Your task to perform on an android device: Go to Google maps Image 0: 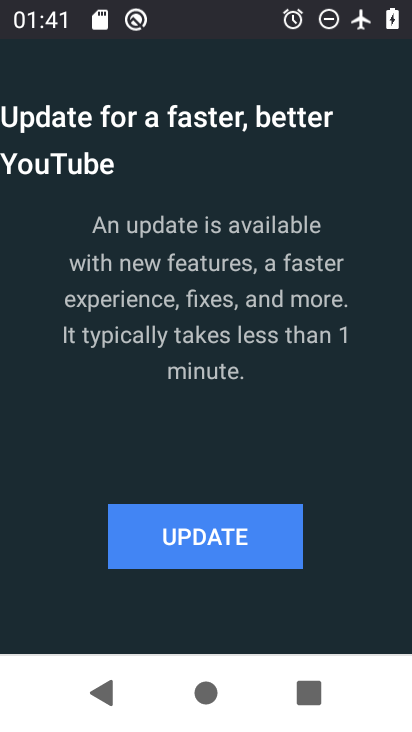
Step 0: press home button
Your task to perform on an android device: Go to Google maps Image 1: 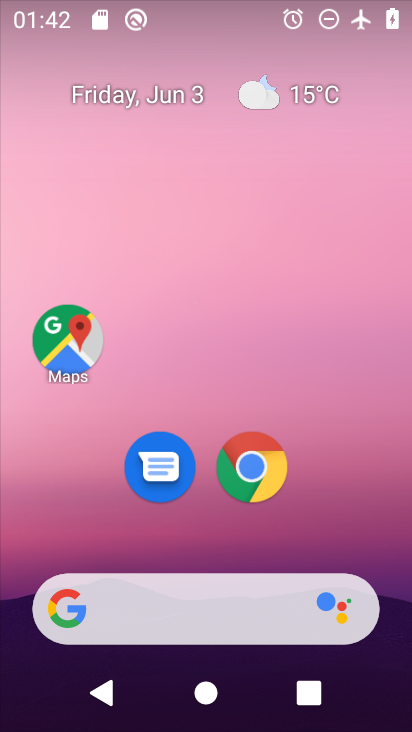
Step 1: click (68, 340)
Your task to perform on an android device: Go to Google maps Image 2: 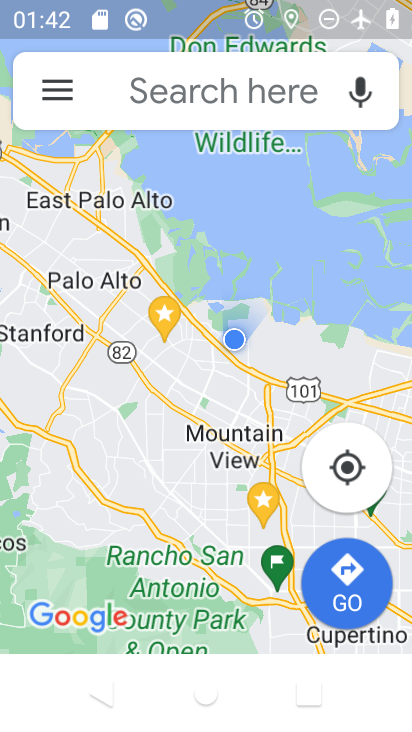
Step 2: task complete